Your task to perform on an android device: toggle sleep mode Image 0: 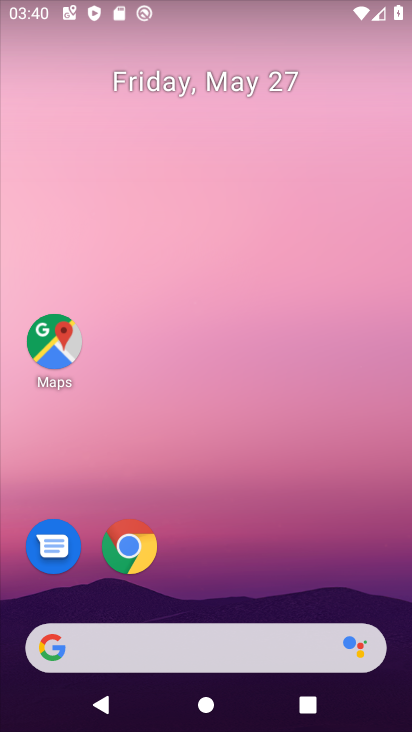
Step 0: drag from (399, 680) to (361, 66)
Your task to perform on an android device: toggle sleep mode Image 1: 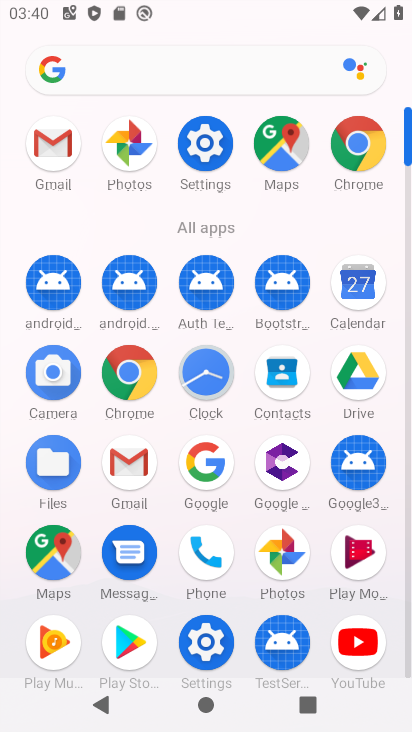
Step 1: click (224, 131)
Your task to perform on an android device: toggle sleep mode Image 2: 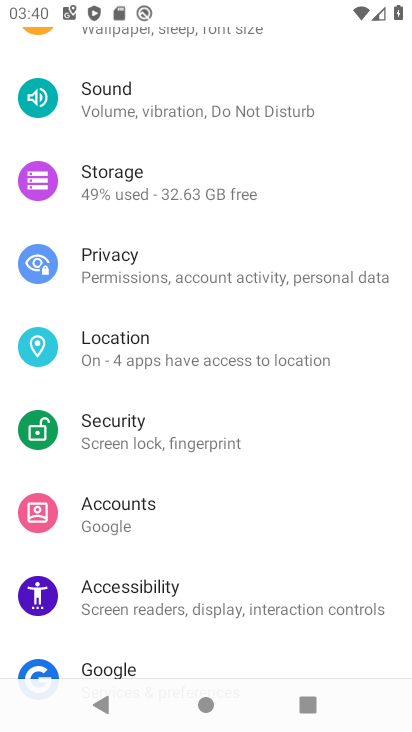
Step 2: drag from (277, 102) to (298, 665)
Your task to perform on an android device: toggle sleep mode Image 3: 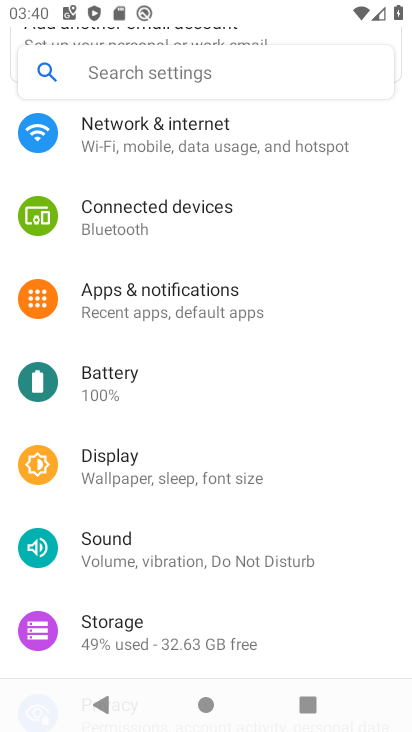
Step 3: click (100, 472)
Your task to perform on an android device: toggle sleep mode Image 4: 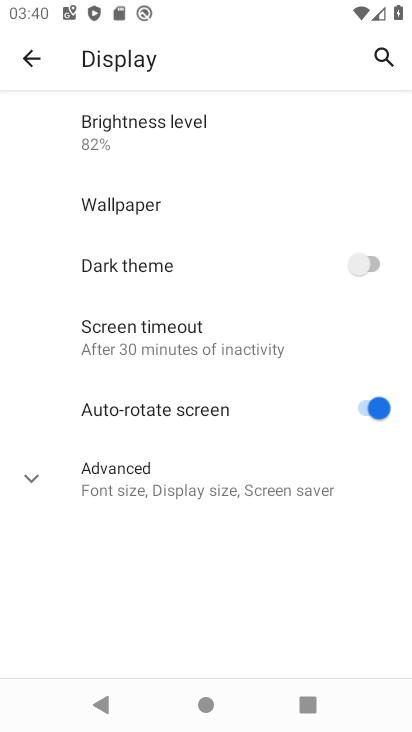
Step 4: click (102, 329)
Your task to perform on an android device: toggle sleep mode Image 5: 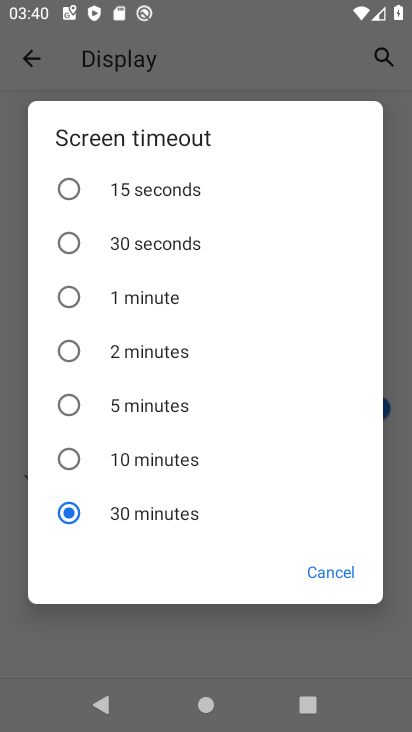
Step 5: click (70, 407)
Your task to perform on an android device: toggle sleep mode Image 6: 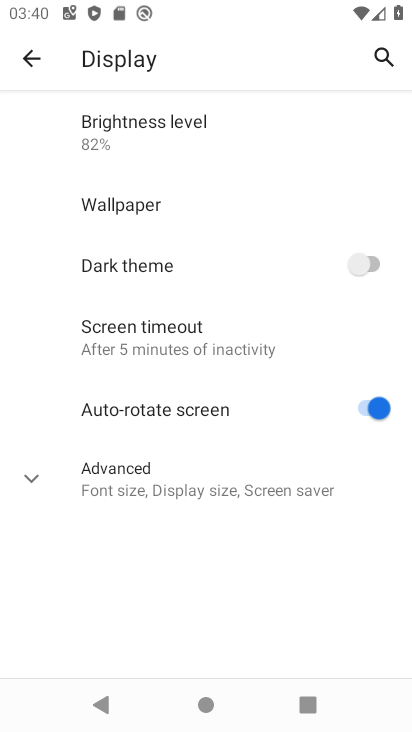
Step 6: task complete